Your task to perform on an android device: change the clock display to show seconds Image 0: 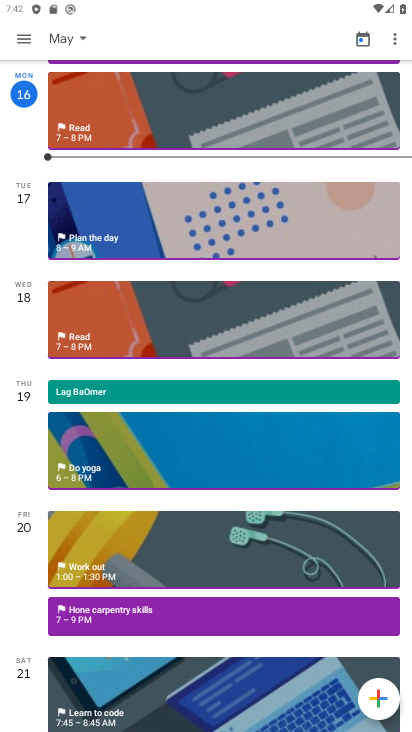
Step 0: press home button
Your task to perform on an android device: change the clock display to show seconds Image 1: 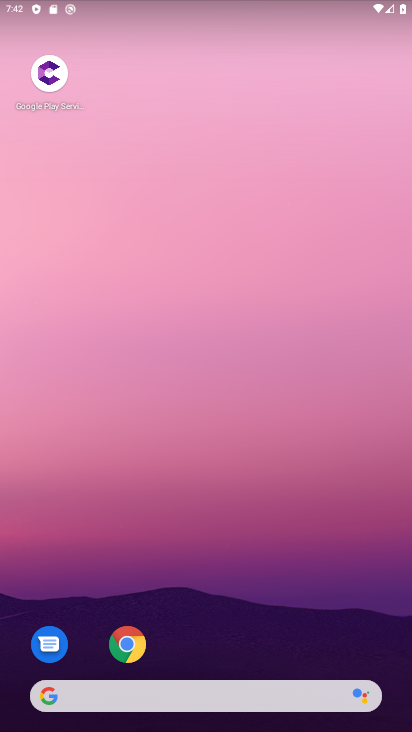
Step 1: drag from (152, 725) to (236, 79)
Your task to perform on an android device: change the clock display to show seconds Image 2: 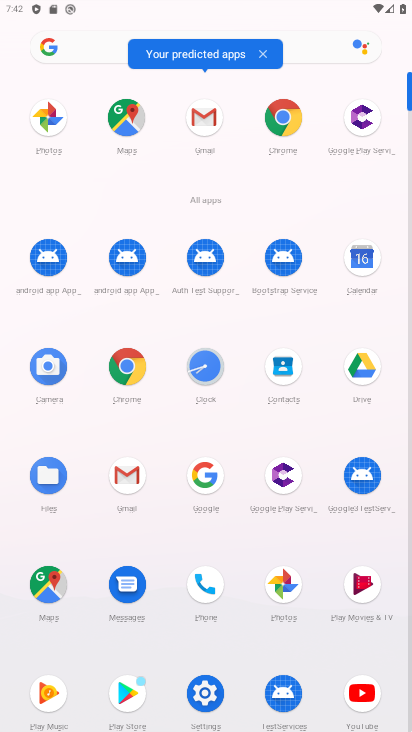
Step 2: click (210, 377)
Your task to perform on an android device: change the clock display to show seconds Image 3: 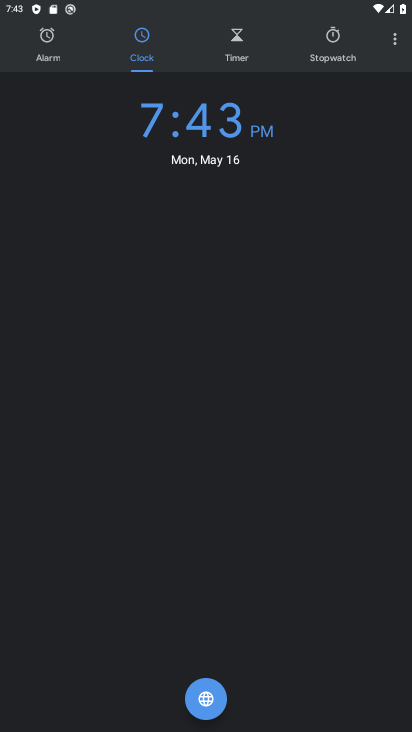
Step 3: click (385, 45)
Your task to perform on an android device: change the clock display to show seconds Image 4: 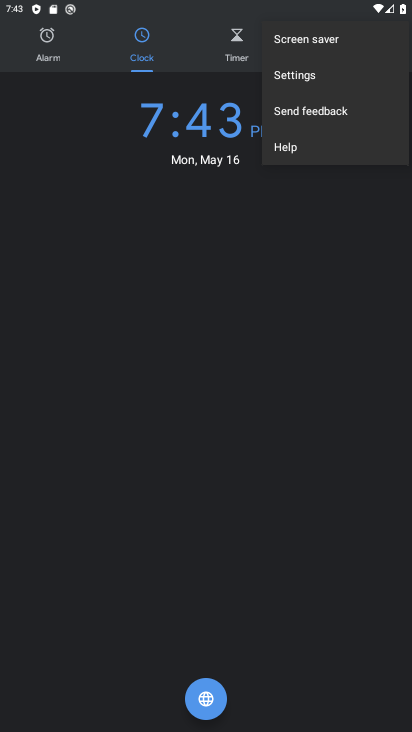
Step 4: click (315, 67)
Your task to perform on an android device: change the clock display to show seconds Image 5: 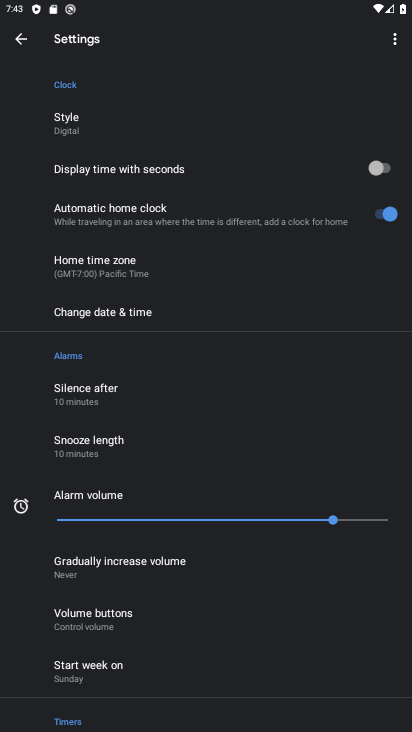
Step 5: click (383, 167)
Your task to perform on an android device: change the clock display to show seconds Image 6: 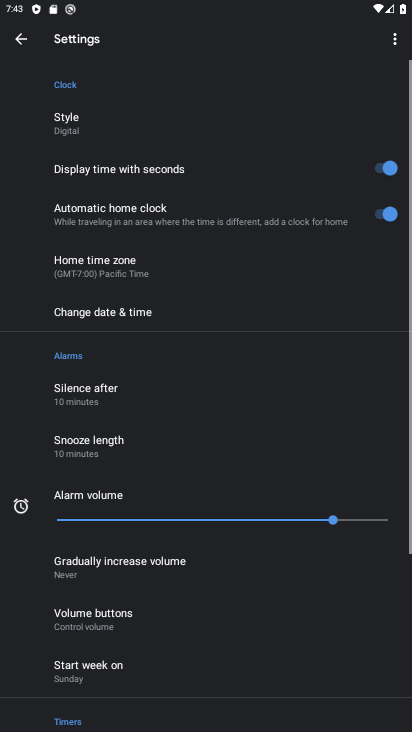
Step 6: task complete